Your task to perform on an android device: Turn off the flashlight Image 0: 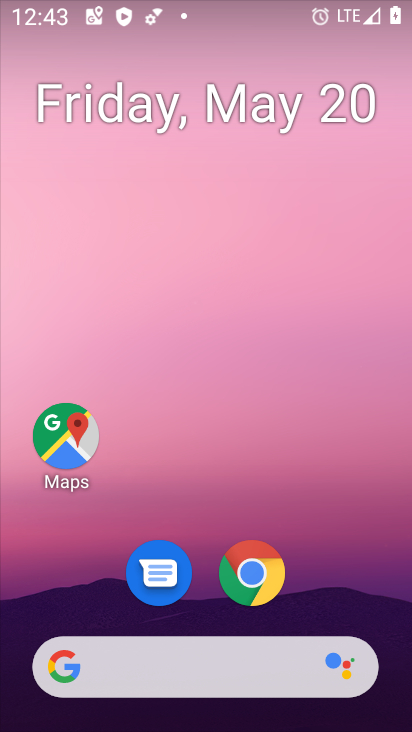
Step 0: drag from (318, 578) to (327, 116)
Your task to perform on an android device: Turn off the flashlight Image 1: 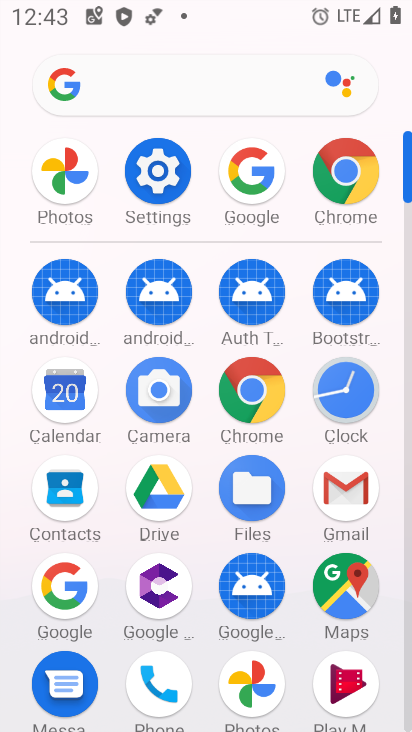
Step 1: click (154, 172)
Your task to perform on an android device: Turn off the flashlight Image 2: 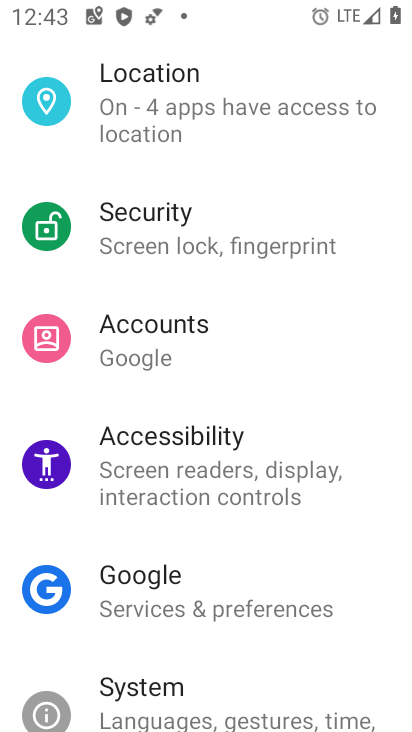
Step 2: drag from (225, 152) to (285, 641)
Your task to perform on an android device: Turn off the flashlight Image 3: 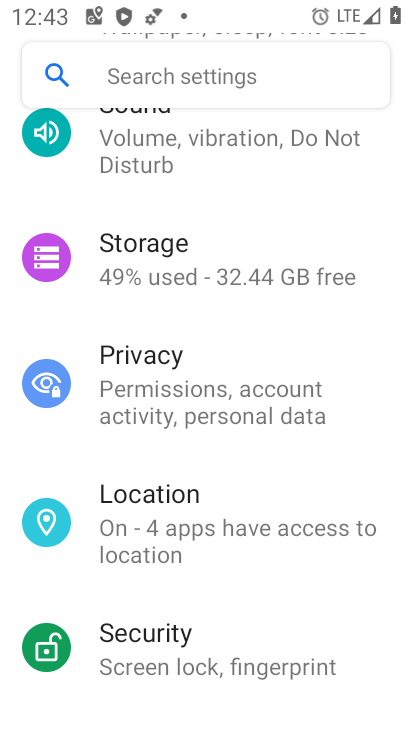
Step 3: click (199, 97)
Your task to perform on an android device: Turn off the flashlight Image 4: 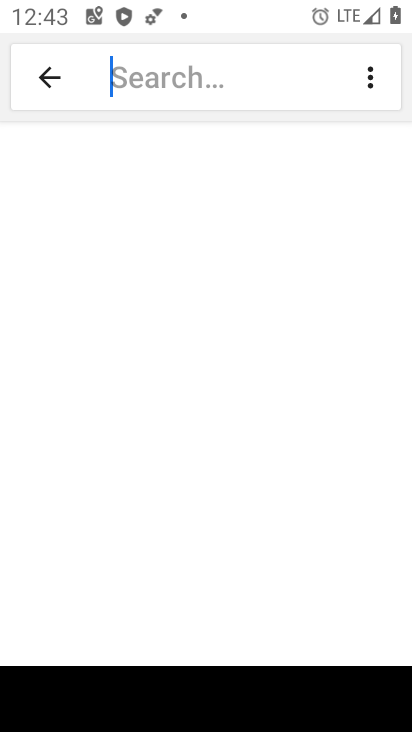
Step 4: type "flash"
Your task to perform on an android device: Turn off the flashlight Image 5: 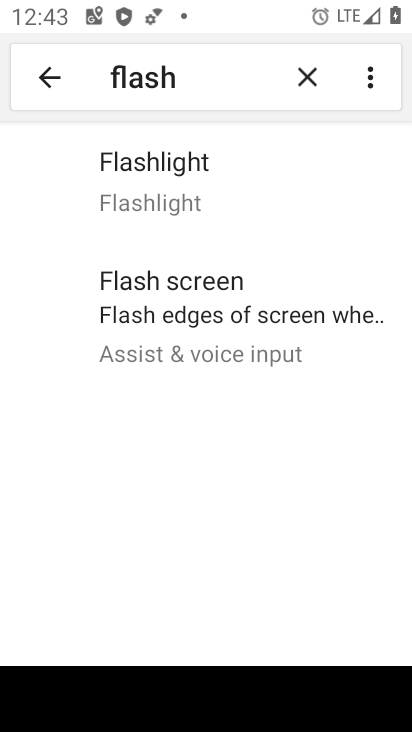
Step 5: task complete